Your task to perform on an android device: Show me the alarms in the clock app Image 0: 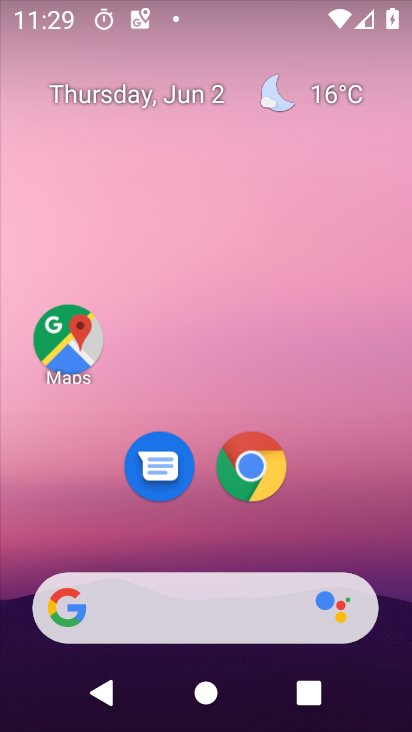
Step 0: drag from (194, 546) to (201, 146)
Your task to perform on an android device: Show me the alarms in the clock app Image 1: 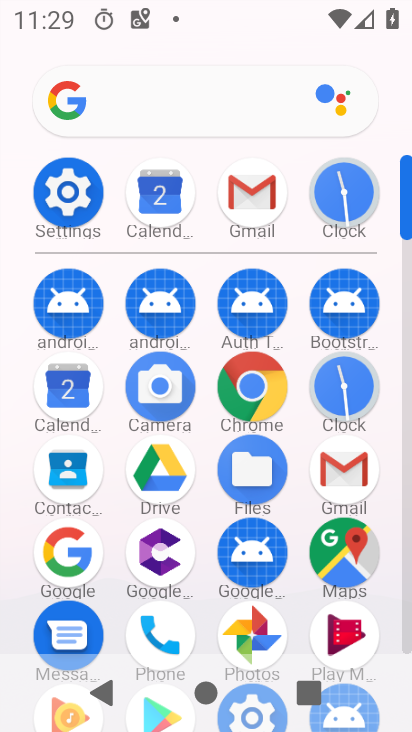
Step 1: click (331, 200)
Your task to perform on an android device: Show me the alarms in the clock app Image 2: 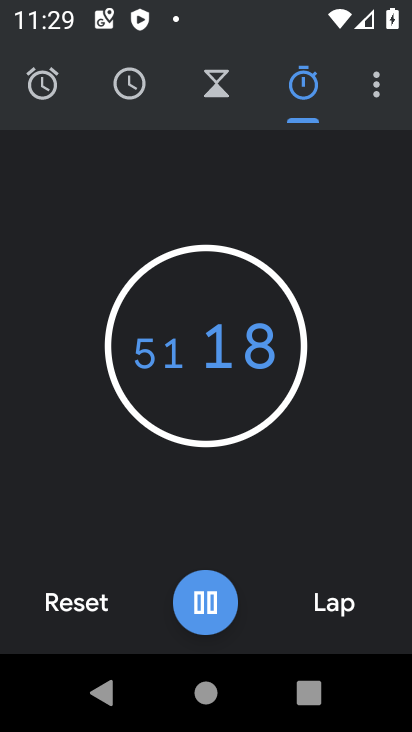
Step 2: click (49, 86)
Your task to perform on an android device: Show me the alarms in the clock app Image 3: 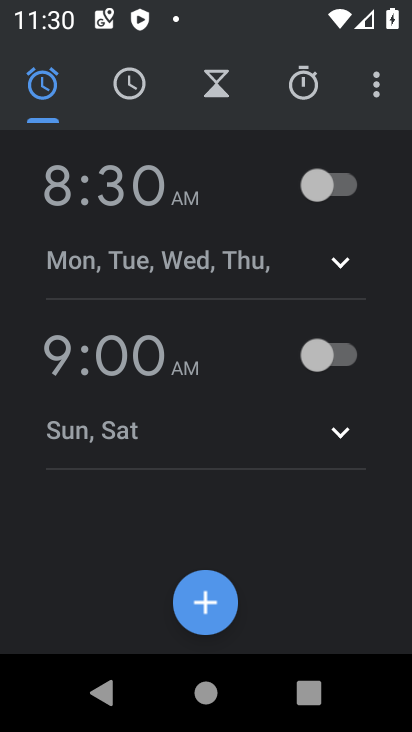
Step 3: task complete